Your task to perform on an android device: turn on the 24-hour format for clock Image 0: 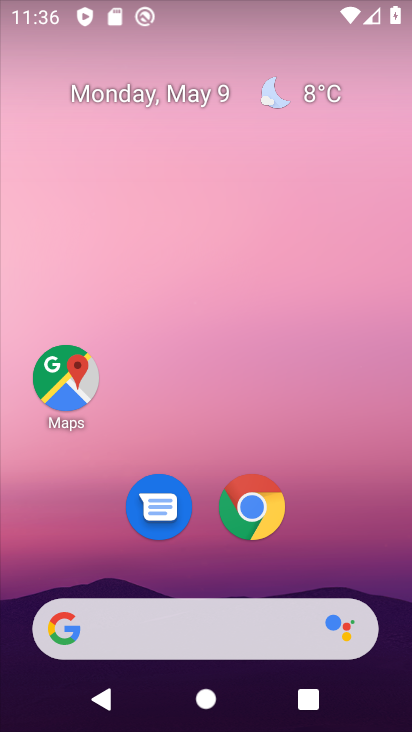
Step 0: drag from (169, 568) to (256, 191)
Your task to perform on an android device: turn on the 24-hour format for clock Image 1: 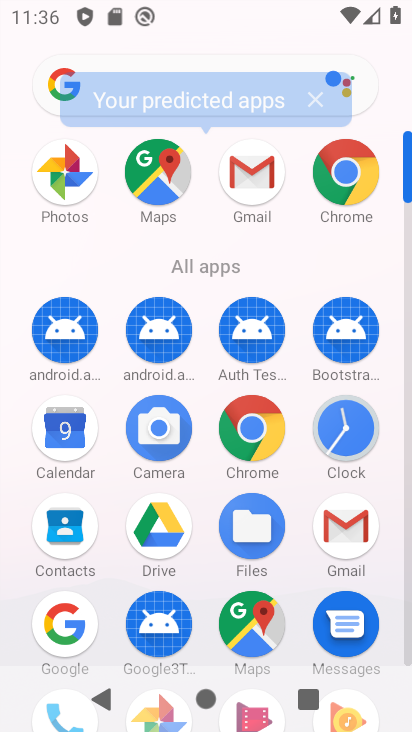
Step 1: click (348, 428)
Your task to perform on an android device: turn on the 24-hour format for clock Image 2: 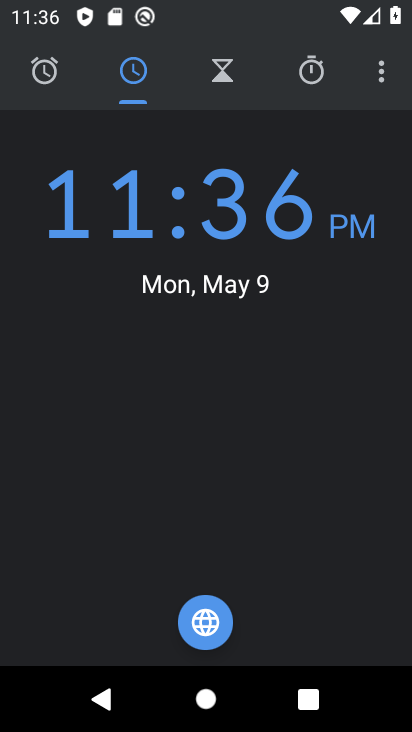
Step 2: click (389, 89)
Your task to perform on an android device: turn on the 24-hour format for clock Image 3: 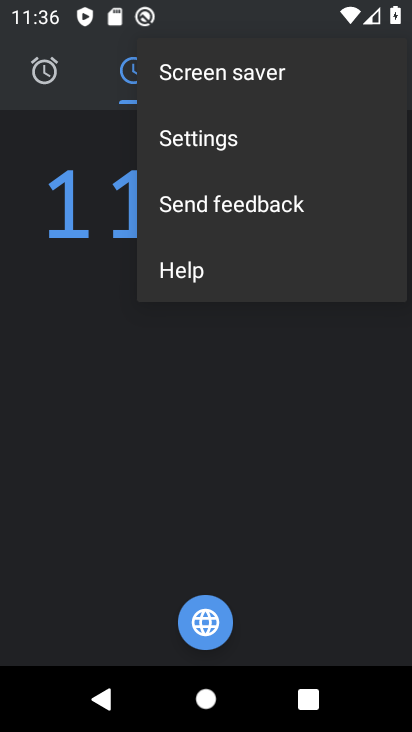
Step 3: click (339, 125)
Your task to perform on an android device: turn on the 24-hour format for clock Image 4: 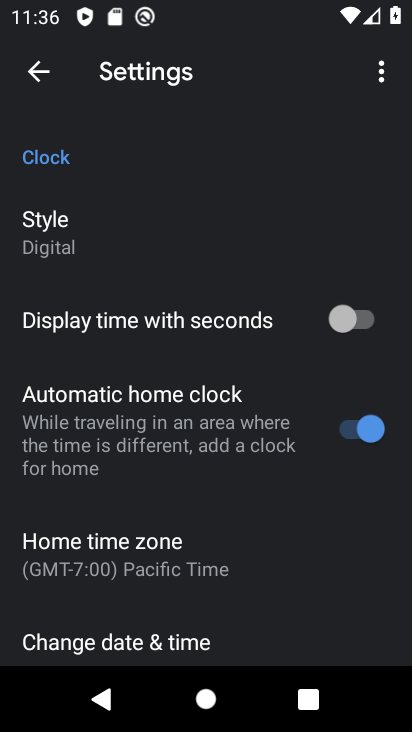
Step 4: drag from (215, 584) to (257, 390)
Your task to perform on an android device: turn on the 24-hour format for clock Image 5: 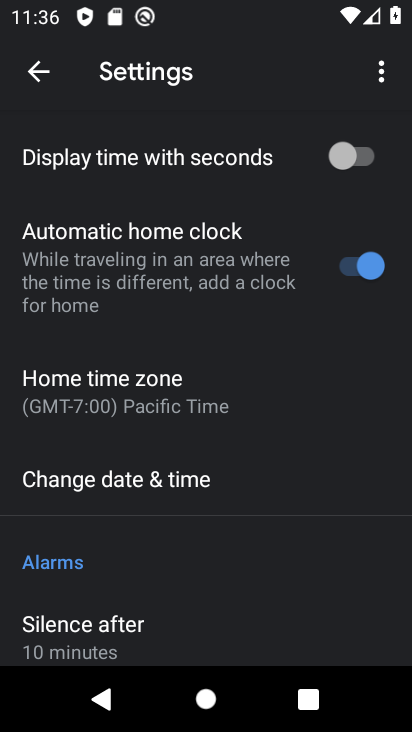
Step 5: click (243, 497)
Your task to perform on an android device: turn on the 24-hour format for clock Image 6: 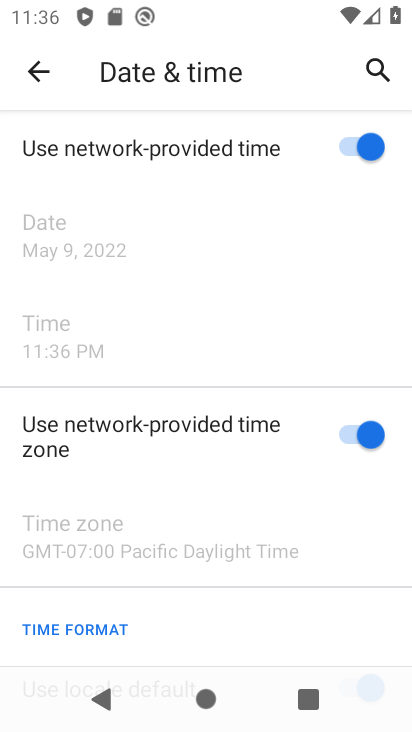
Step 6: drag from (177, 585) to (259, 243)
Your task to perform on an android device: turn on the 24-hour format for clock Image 7: 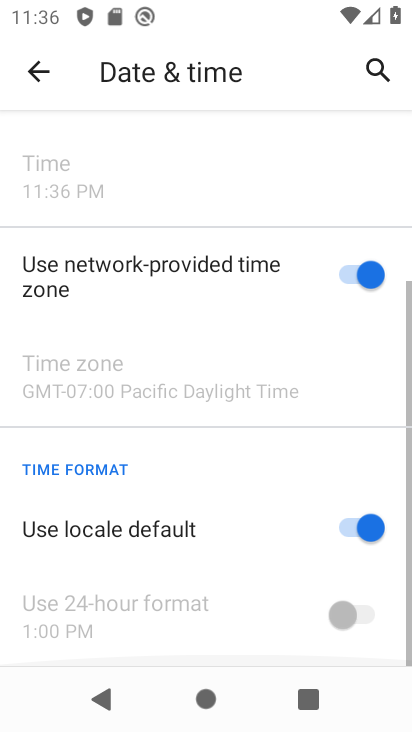
Step 7: drag from (139, 594) to (207, 323)
Your task to perform on an android device: turn on the 24-hour format for clock Image 8: 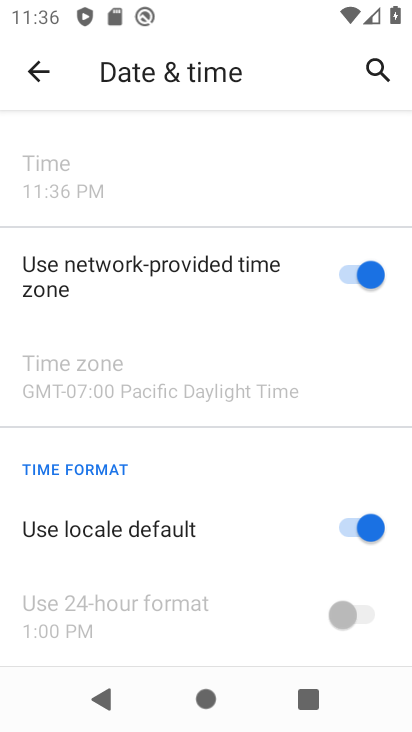
Step 8: click (358, 540)
Your task to perform on an android device: turn on the 24-hour format for clock Image 9: 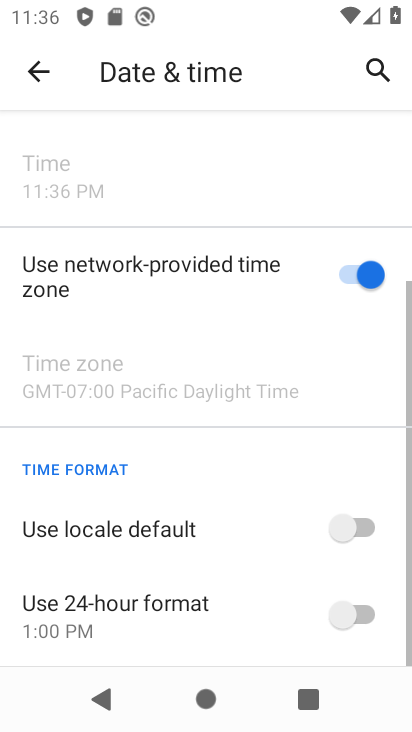
Step 9: click (373, 618)
Your task to perform on an android device: turn on the 24-hour format for clock Image 10: 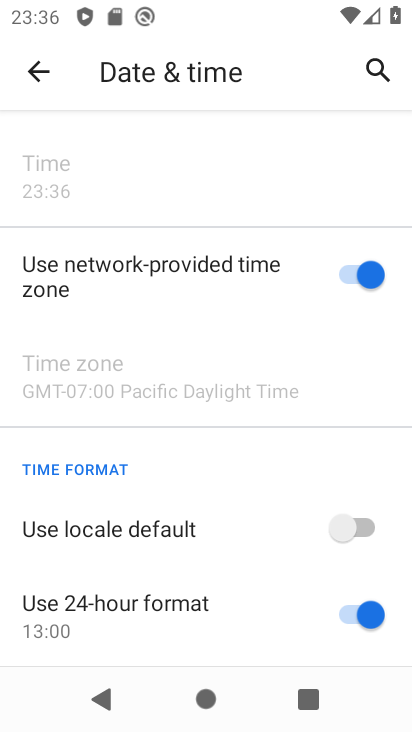
Step 10: task complete